Your task to perform on an android device: empty trash in google photos Image 0: 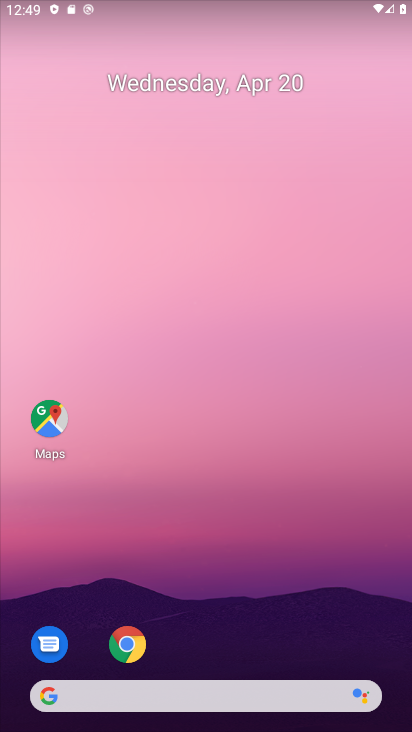
Step 0: drag from (278, 635) to (339, 35)
Your task to perform on an android device: empty trash in google photos Image 1: 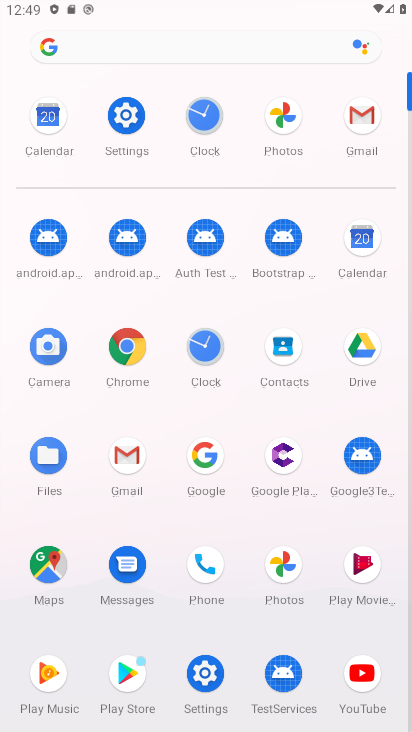
Step 1: click (292, 116)
Your task to perform on an android device: empty trash in google photos Image 2: 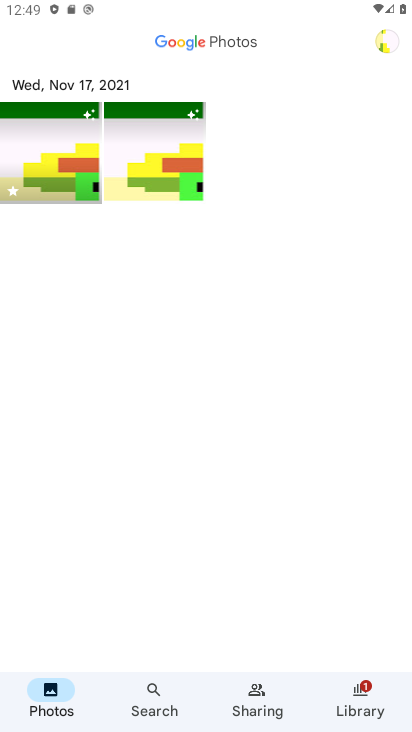
Step 2: click (151, 692)
Your task to perform on an android device: empty trash in google photos Image 3: 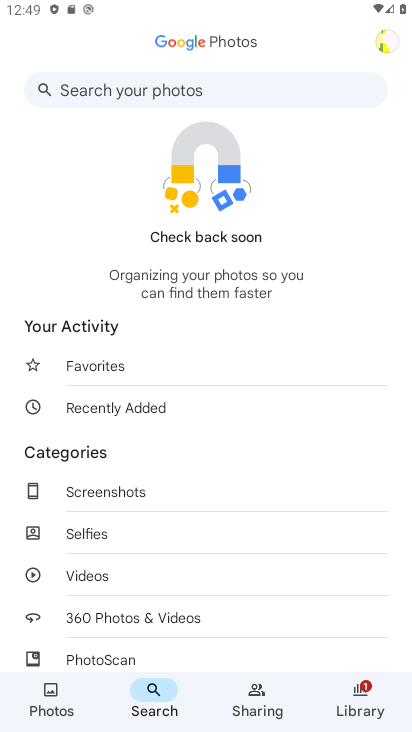
Step 3: drag from (266, 530) to (260, 151)
Your task to perform on an android device: empty trash in google photos Image 4: 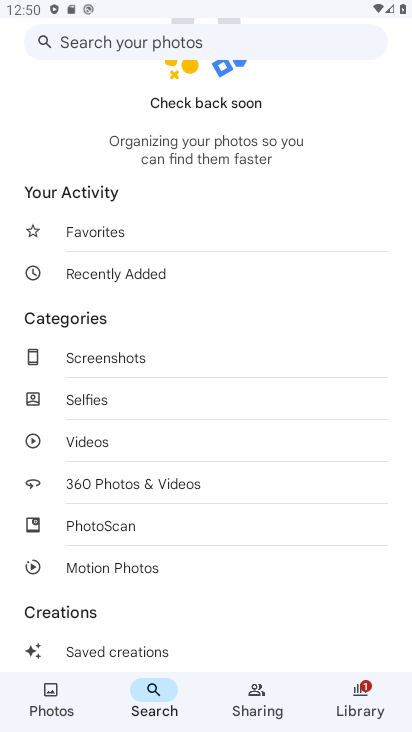
Step 4: drag from (198, 530) to (208, 277)
Your task to perform on an android device: empty trash in google photos Image 5: 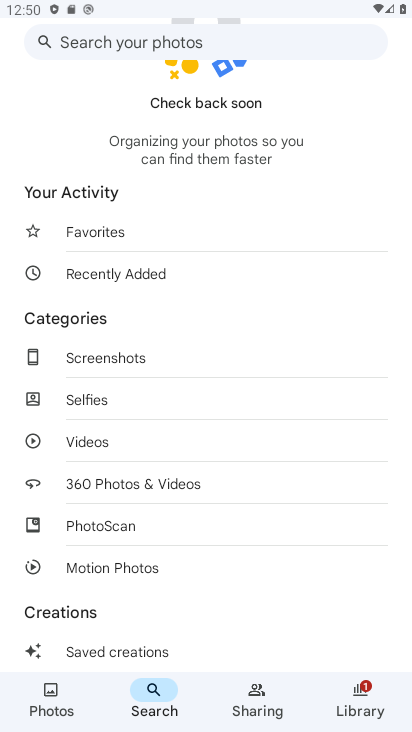
Step 5: drag from (217, 217) to (272, 604)
Your task to perform on an android device: empty trash in google photos Image 6: 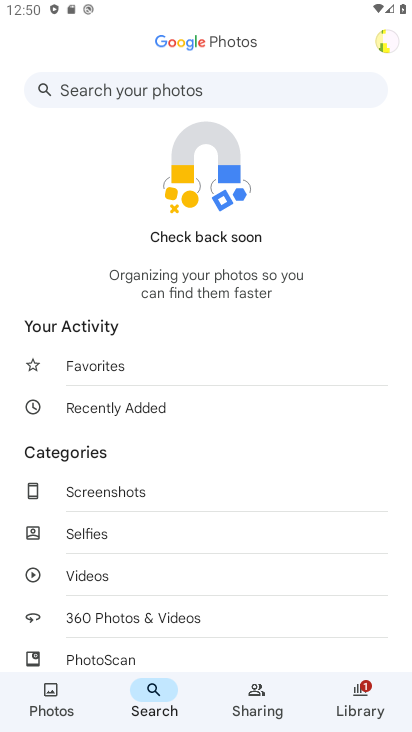
Step 6: click (387, 30)
Your task to perform on an android device: empty trash in google photos Image 7: 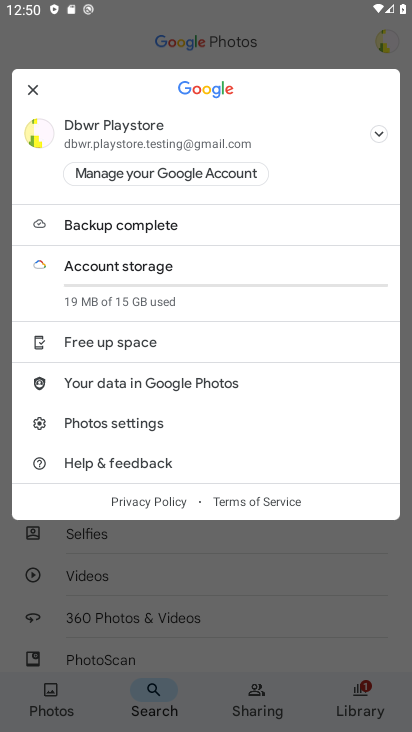
Step 7: click (136, 412)
Your task to perform on an android device: empty trash in google photos Image 8: 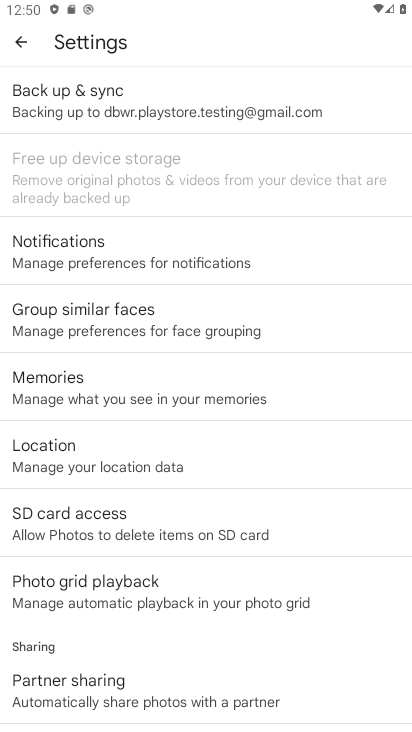
Step 8: task complete